Your task to perform on an android device: change keyboard looks Image 0: 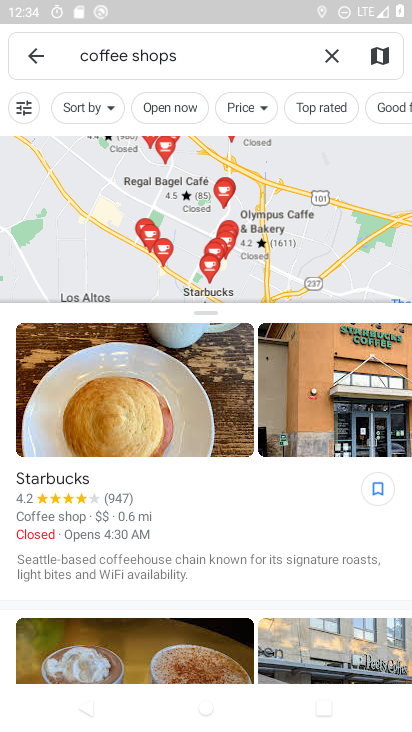
Step 0: press home button
Your task to perform on an android device: change keyboard looks Image 1: 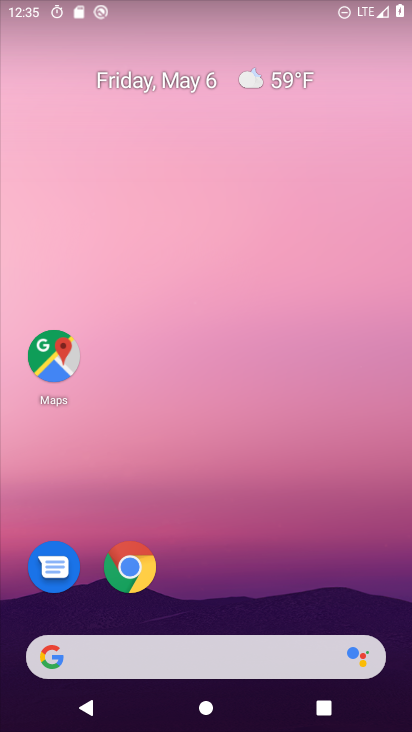
Step 1: drag from (289, 577) to (298, 33)
Your task to perform on an android device: change keyboard looks Image 2: 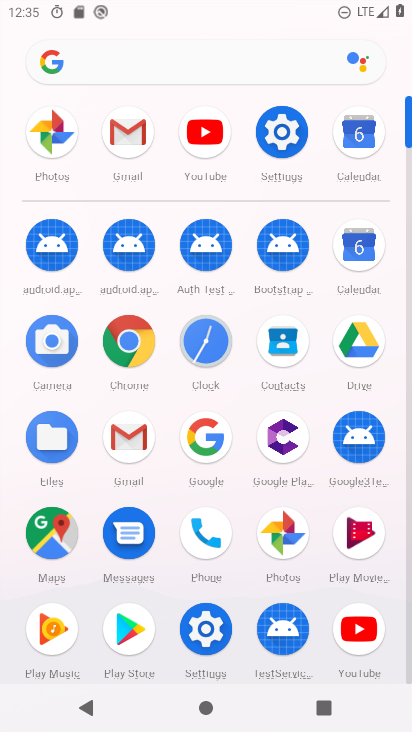
Step 2: click (278, 133)
Your task to perform on an android device: change keyboard looks Image 3: 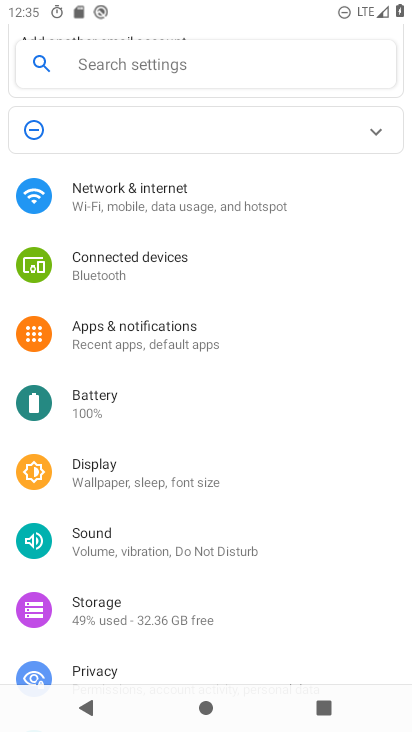
Step 3: drag from (263, 558) to (260, 251)
Your task to perform on an android device: change keyboard looks Image 4: 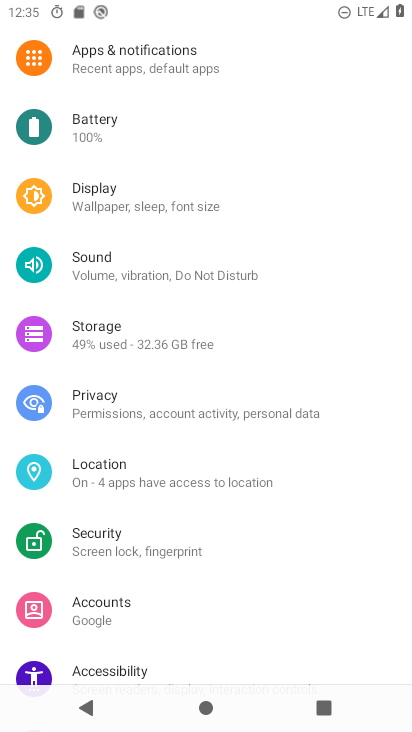
Step 4: drag from (280, 614) to (286, 215)
Your task to perform on an android device: change keyboard looks Image 5: 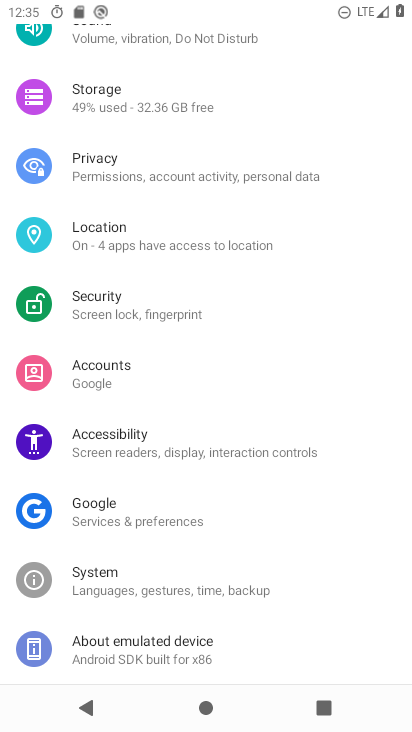
Step 5: click (115, 594)
Your task to perform on an android device: change keyboard looks Image 6: 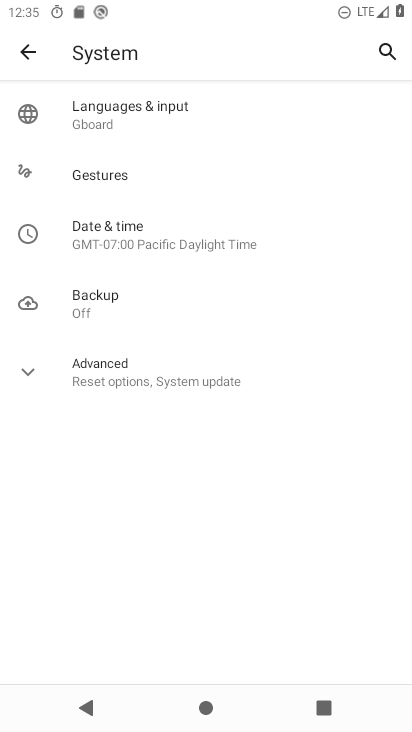
Step 6: click (107, 126)
Your task to perform on an android device: change keyboard looks Image 7: 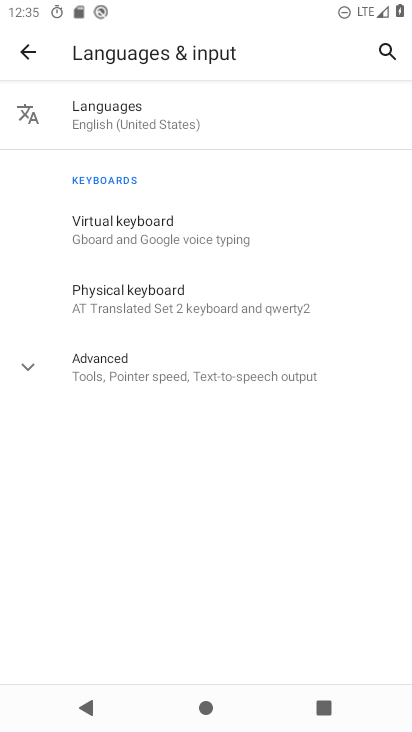
Step 7: click (104, 227)
Your task to perform on an android device: change keyboard looks Image 8: 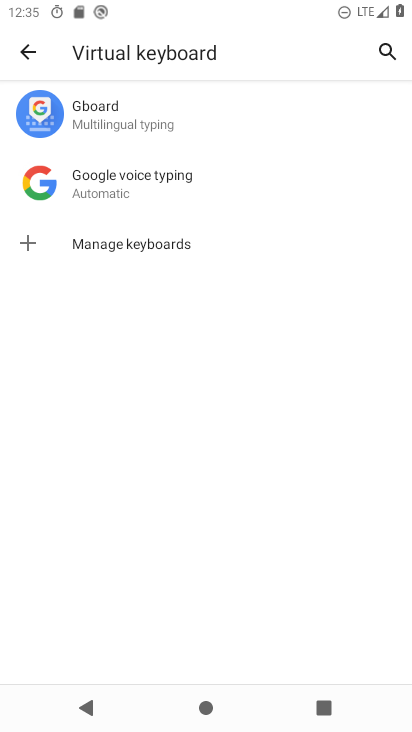
Step 8: click (86, 112)
Your task to perform on an android device: change keyboard looks Image 9: 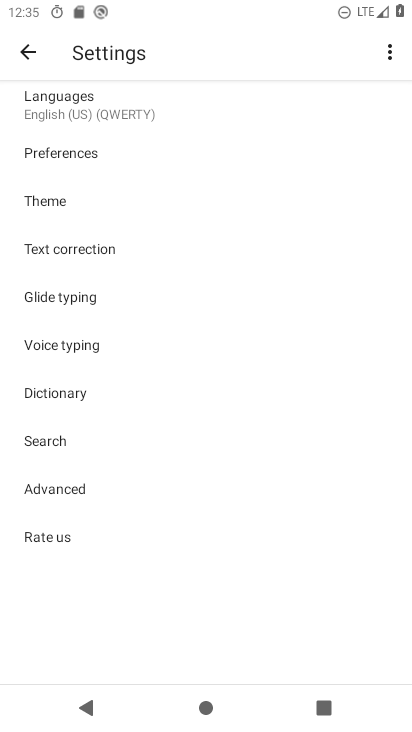
Step 9: click (45, 207)
Your task to perform on an android device: change keyboard looks Image 10: 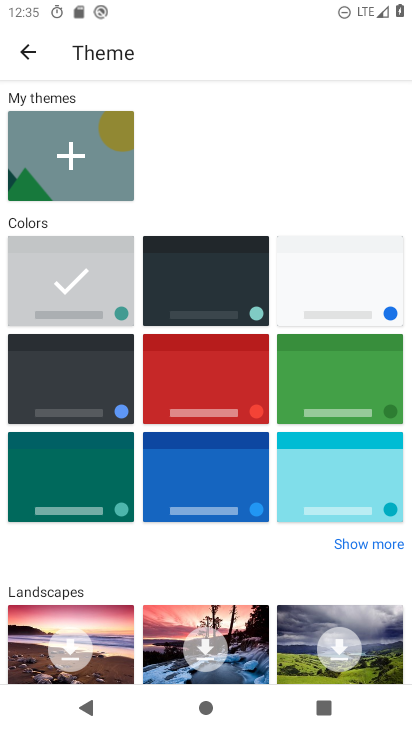
Step 10: click (173, 294)
Your task to perform on an android device: change keyboard looks Image 11: 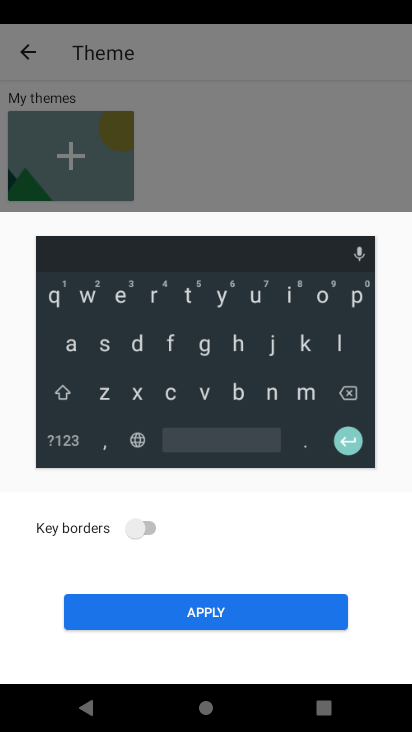
Step 11: click (144, 531)
Your task to perform on an android device: change keyboard looks Image 12: 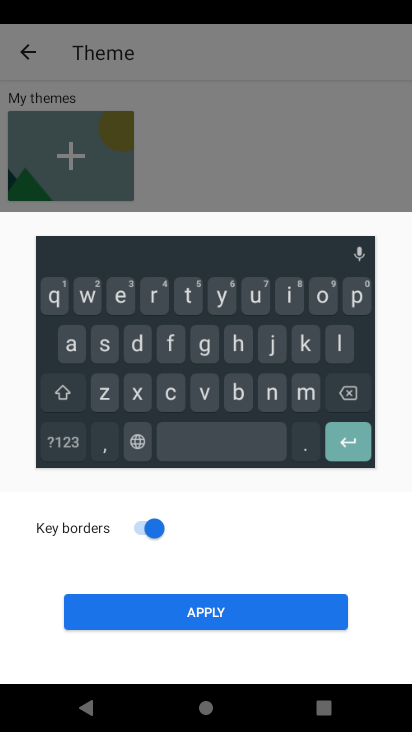
Step 12: click (202, 616)
Your task to perform on an android device: change keyboard looks Image 13: 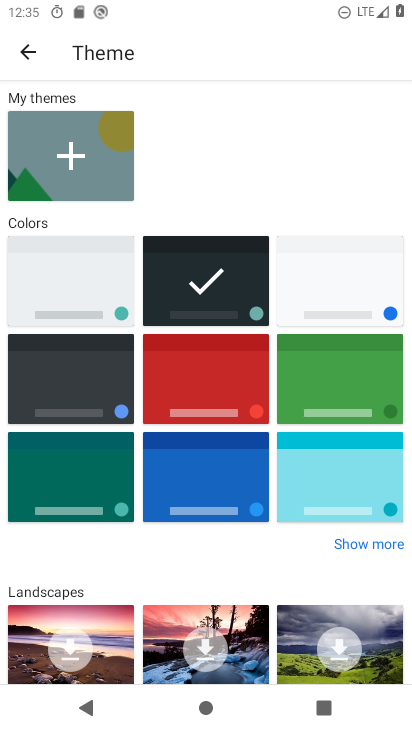
Step 13: task complete